Your task to perform on an android device: change the clock display to show seconds Image 0: 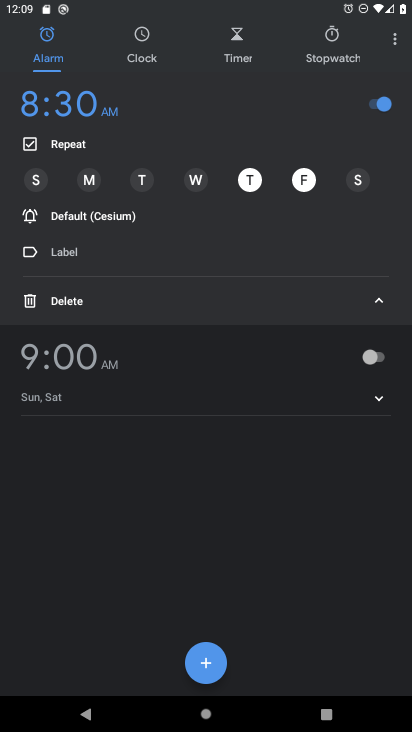
Step 0: press home button
Your task to perform on an android device: change the clock display to show seconds Image 1: 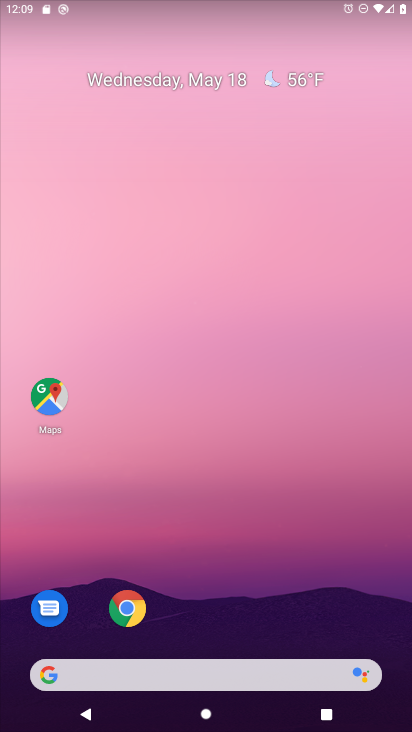
Step 1: drag from (258, 684) to (310, 133)
Your task to perform on an android device: change the clock display to show seconds Image 2: 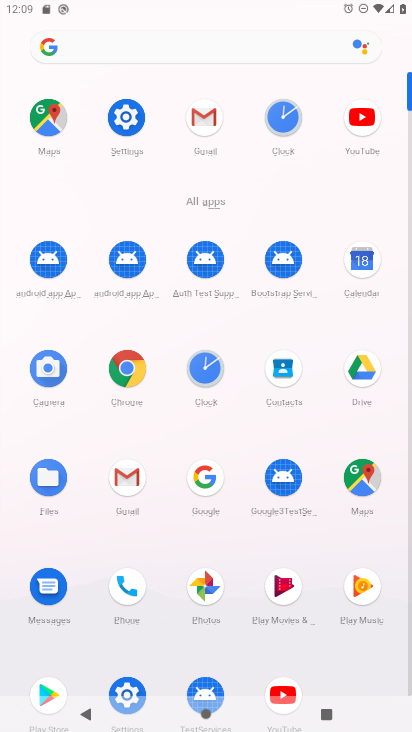
Step 2: click (203, 375)
Your task to perform on an android device: change the clock display to show seconds Image 3: 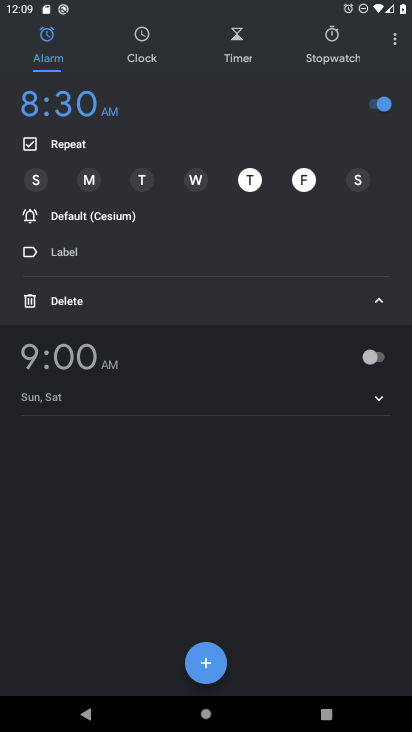
Step 3: click (395, 35)
Your task to perform on an android device: change the clock display to show seconds Image 4: 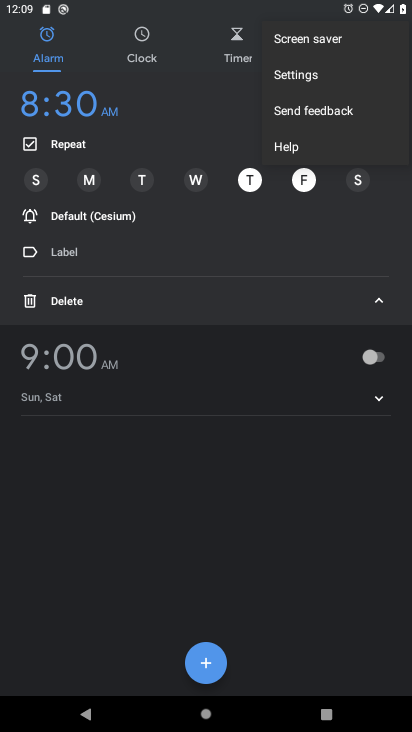
Step 4: click (300, 82)
Your task to perform on an android device: change the clock display to show seconds Image 5: 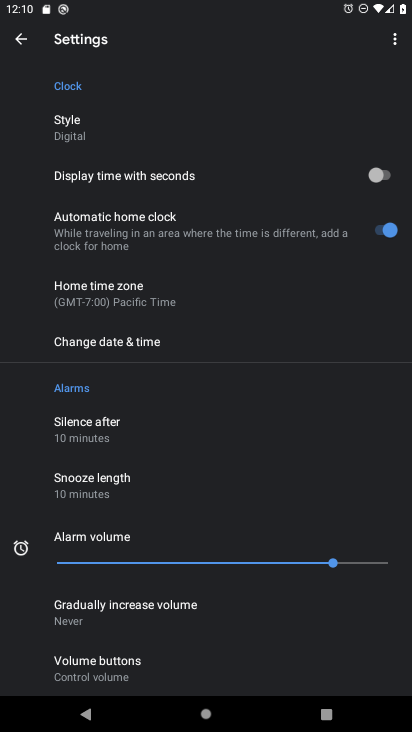
Step 5: click (379, 178)
Your task to perform on an android device: change the clock display to show seconds Image 6: 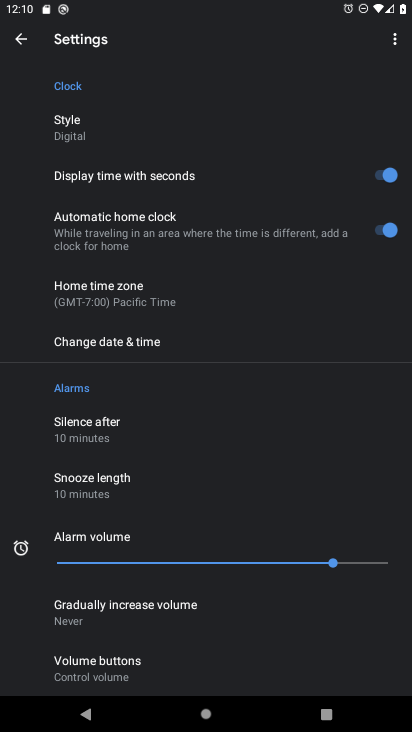
Step 6: task complete